Your task to perform on an android device: open app "Pandora - Music & Podcasts" Image 0: 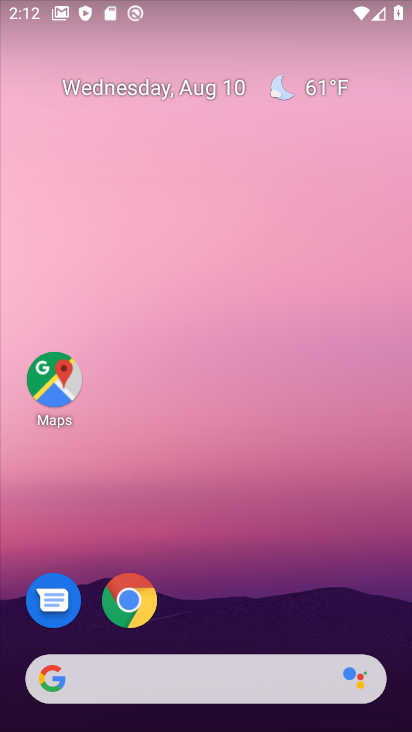
Step 0: drag from (179, 512) to (267, 37)
Your task to perform on an android device: open app "Pandora - Music & Podcasts" Image 1: 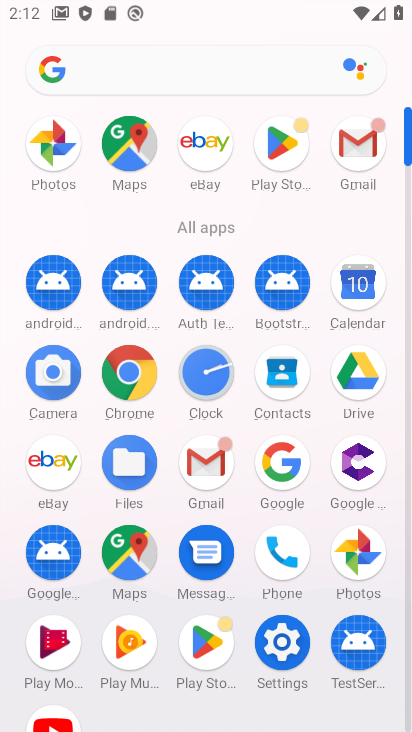
Step 1: click (280, 141)
Your task to perform on an android device: open app "Pandora - Music & Podcasts" Image 2: 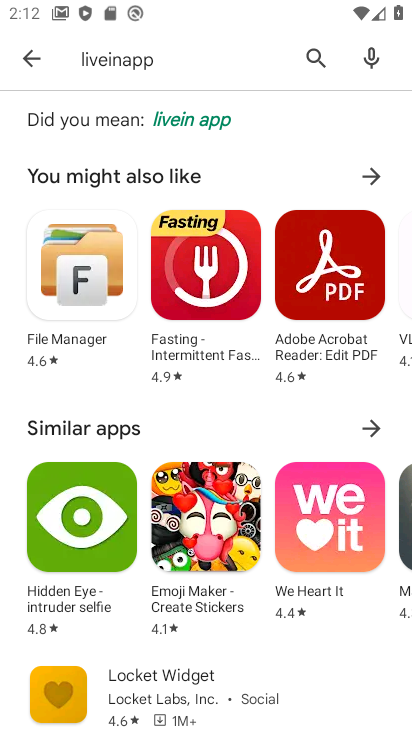
Step 2: click (302, 57)
Your task to perform on an android device: open app "Pandora - Music & Podcasts" Image 3: 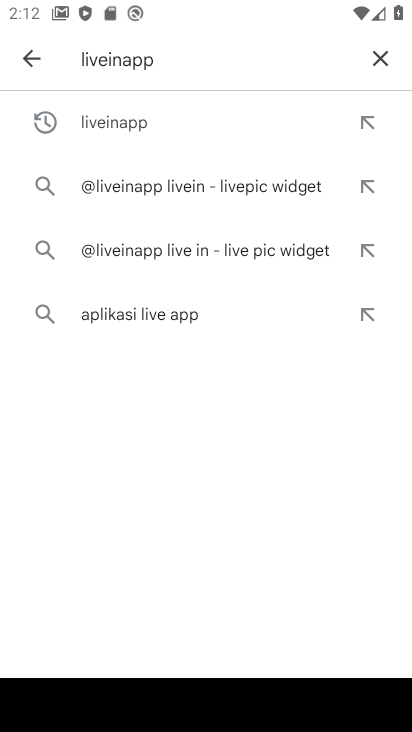
Step 3: click (379, 53)
Your task to perform on an android device: open app "Pandora - Music & Podcasts" Image 4: 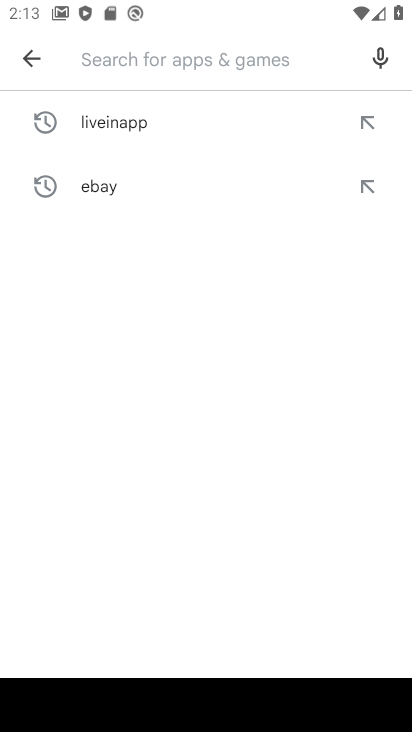
Step 4: click (220, 71)
Your task to perform on an android device: open app "Pandora - Music & Podcasts" Image 5: 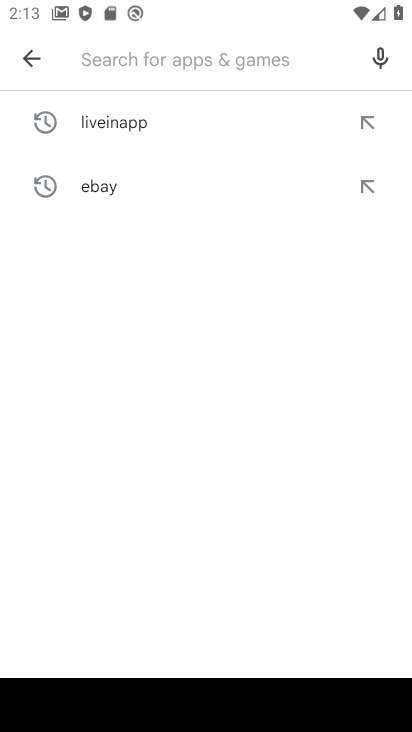
Step 5: type "Pandora"
Your task to perform on an android device: open app "Pandora - Music & Podcasts" Image 6: 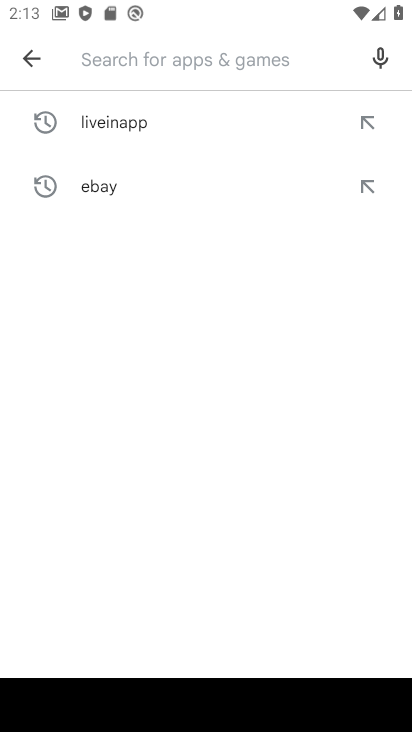
Step 6: click (133, 347)
Your task to perform on an android device: open app "Pandora - Music & Podcasts" Image 7: 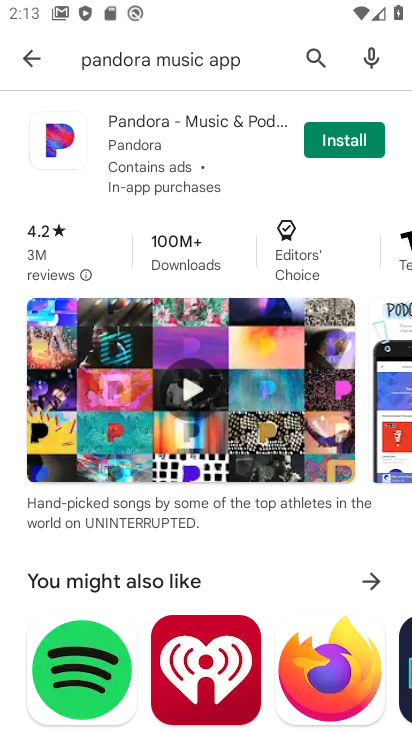
Step 7: task complete